Your task to perform on an android device: turn notification dots off Image 0: 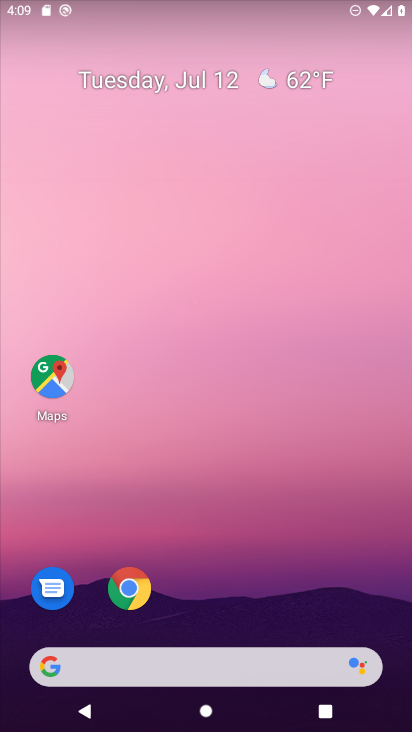
Step 0: drag from (224, 602) to (343, 52)
Your task to perform on an android device: turn notification dots off Image 1: 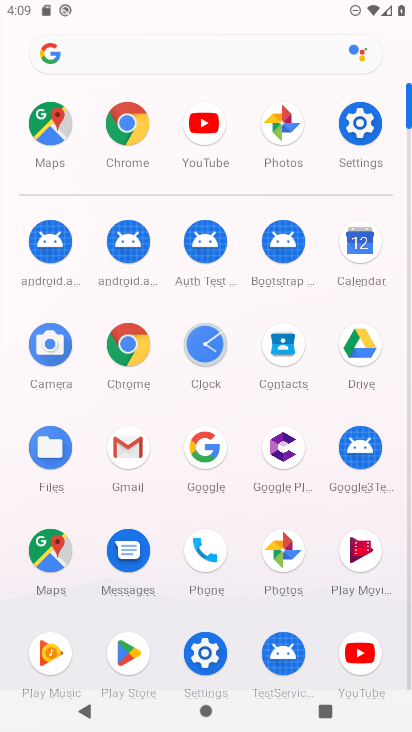
Step 1: click (218, 658)
Your task to perform on an android device: turn notification dots off Image 2: 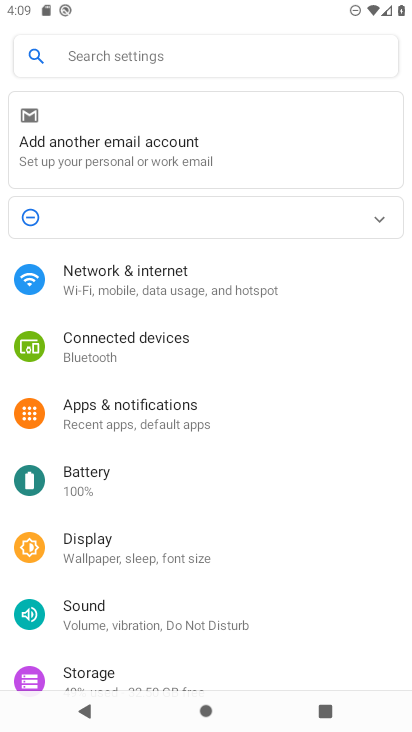
Step 2: click (155, 421)
Your task to perform on an android device: turn notification dots off Image 3: 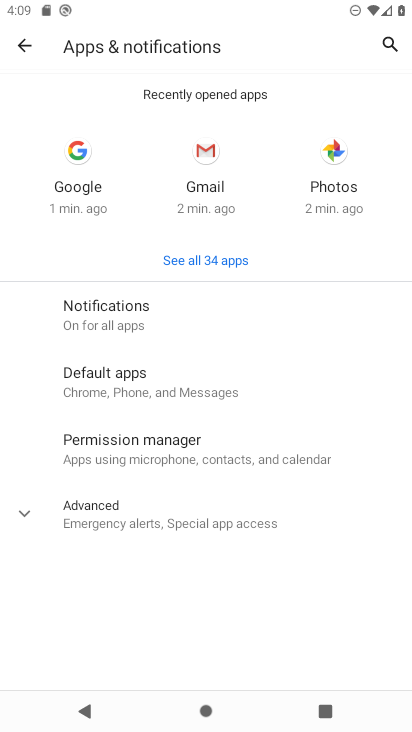
Step 3: click (108, 330)
Your task to perform on an android device: turn notification dots off Image 4: 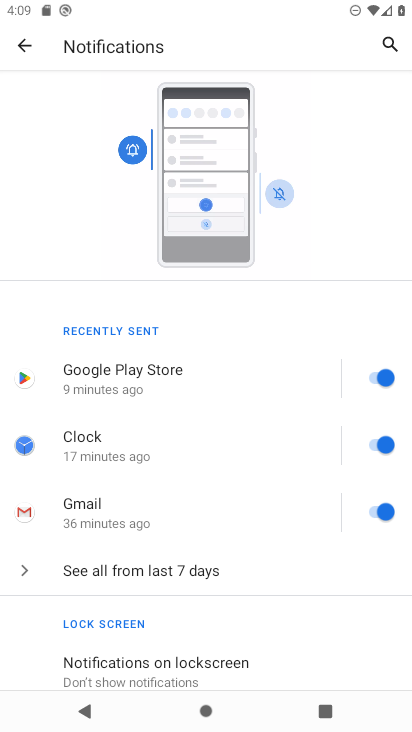
Step 4: drag from (235, 561) to (271, 338)
Your task to perform on an android device: turn notification dots off Image 5: 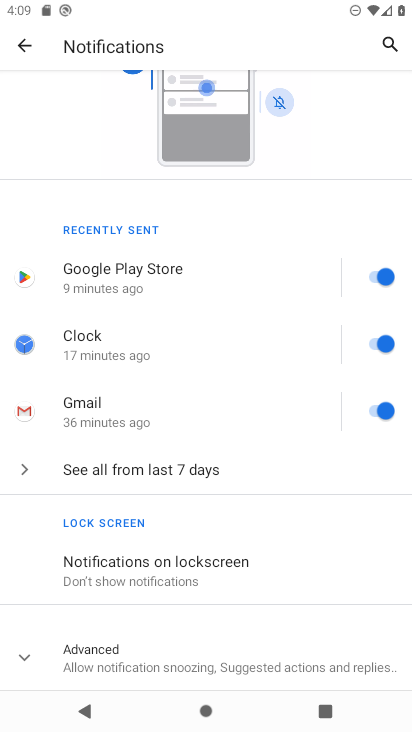
Step 5: click (264, 665)
Your task to perform on an android device: turn notification dots off Image 6: 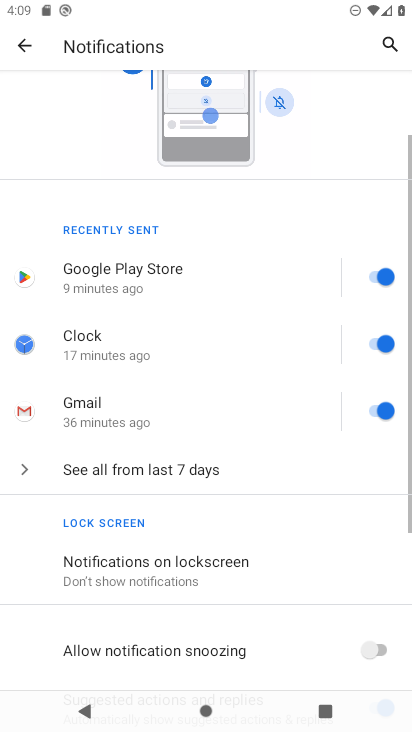
Step 6: drag from (269, 639) to (301, 337)
Your task to perform on an android device: turn notification dots off Image 7: 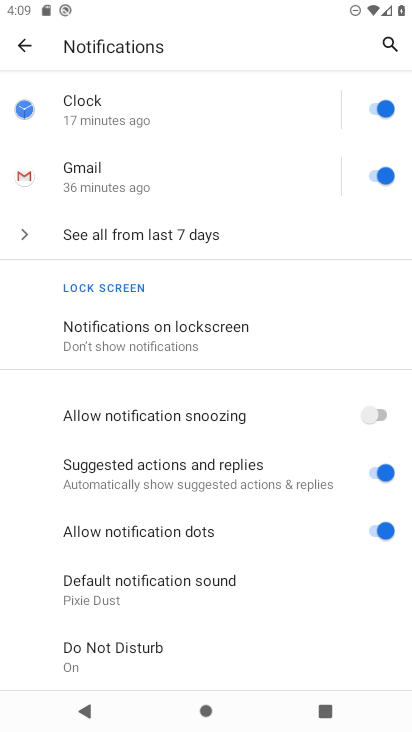
Step 7: click (365, 528)
Your task to perform on an android device: turn notification dots off Image 8: 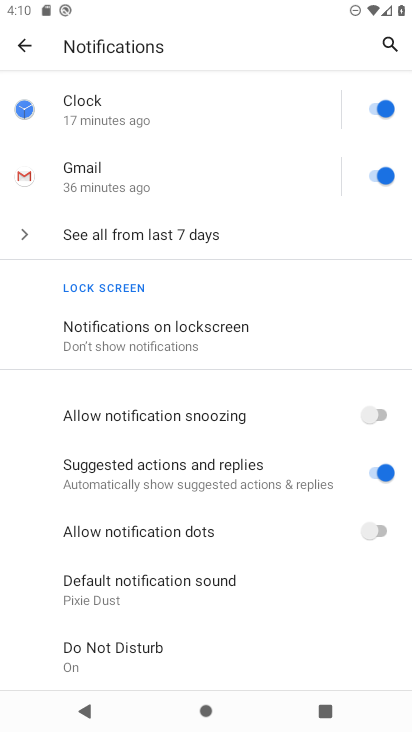
Step 8: task complete